Your task to perform on an android device: add a contact Image 0: 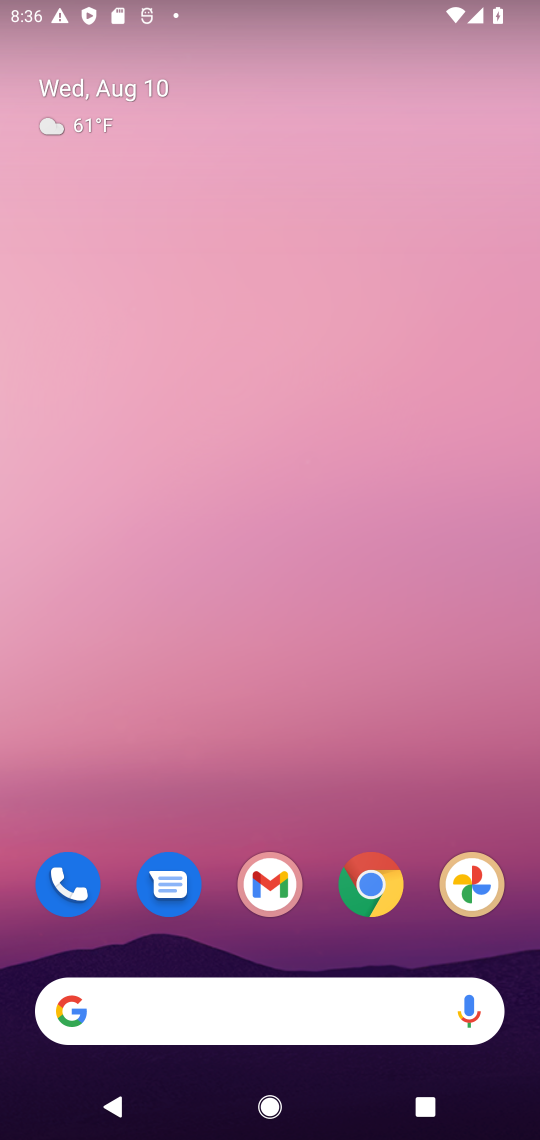
Step 0: click (62, 864)
Your task to perform on an android device: add a contact Image 1: 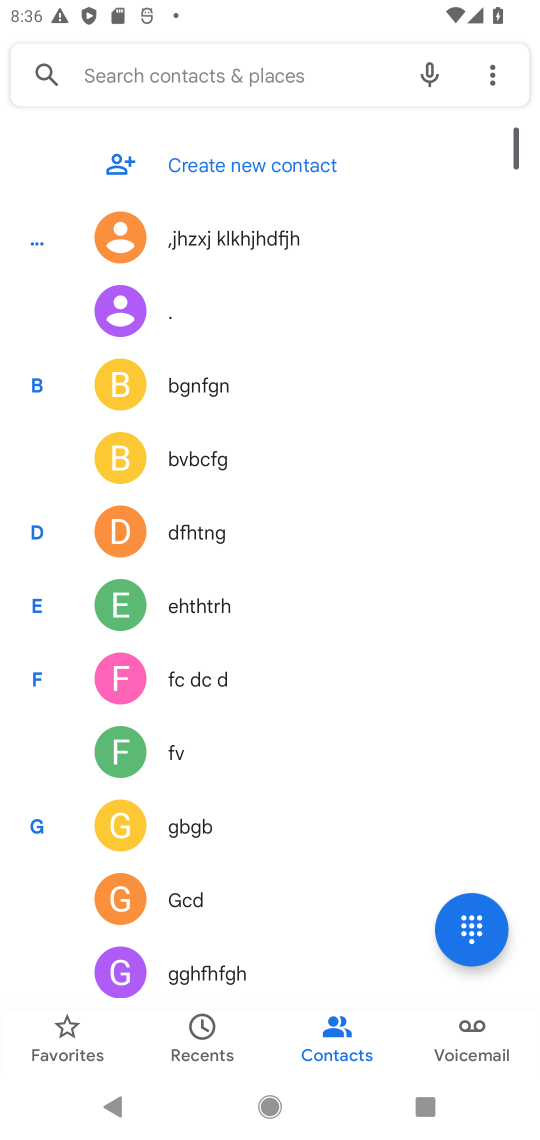
Step 1: click (253, 164)
Your task to perform on an android device: add a contact Image 2: 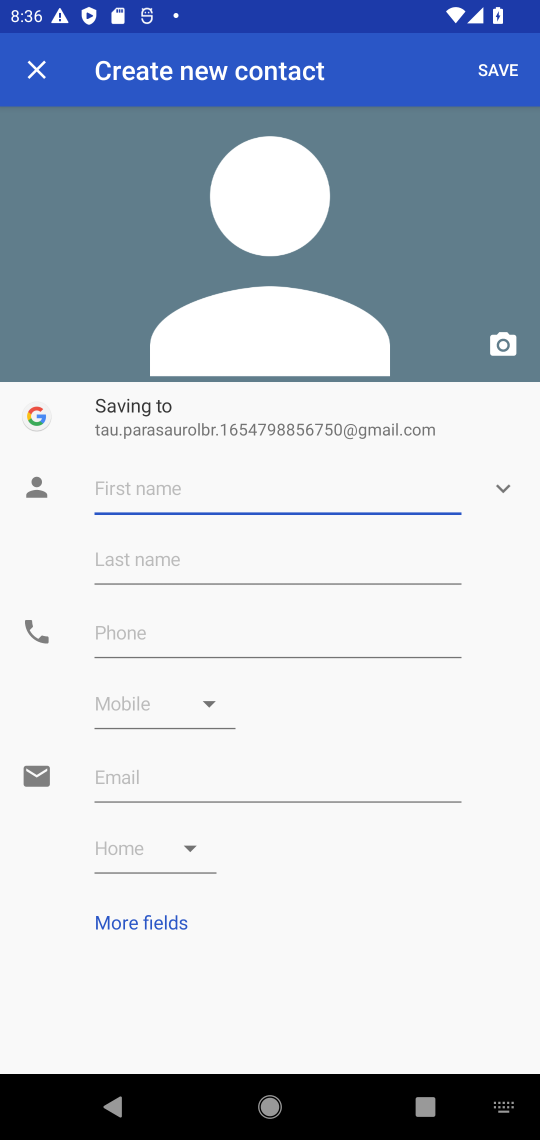
Step 2: type "svvavd"
Your task to perform on an android device: add a contact Image 3: 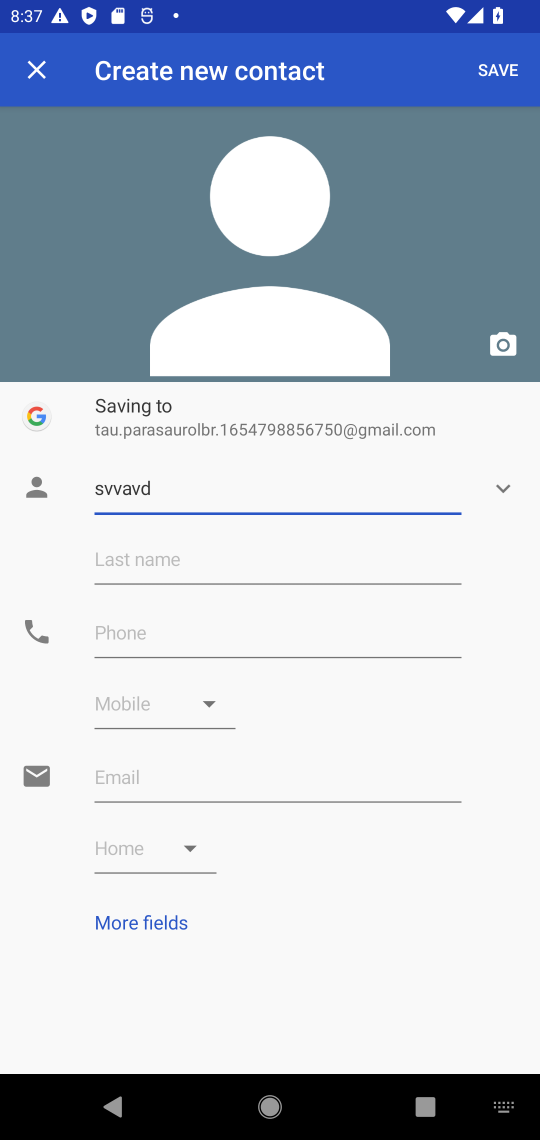
Step 3: click (497, 68)
Your task to perform on an android device: add a contact Image 4: 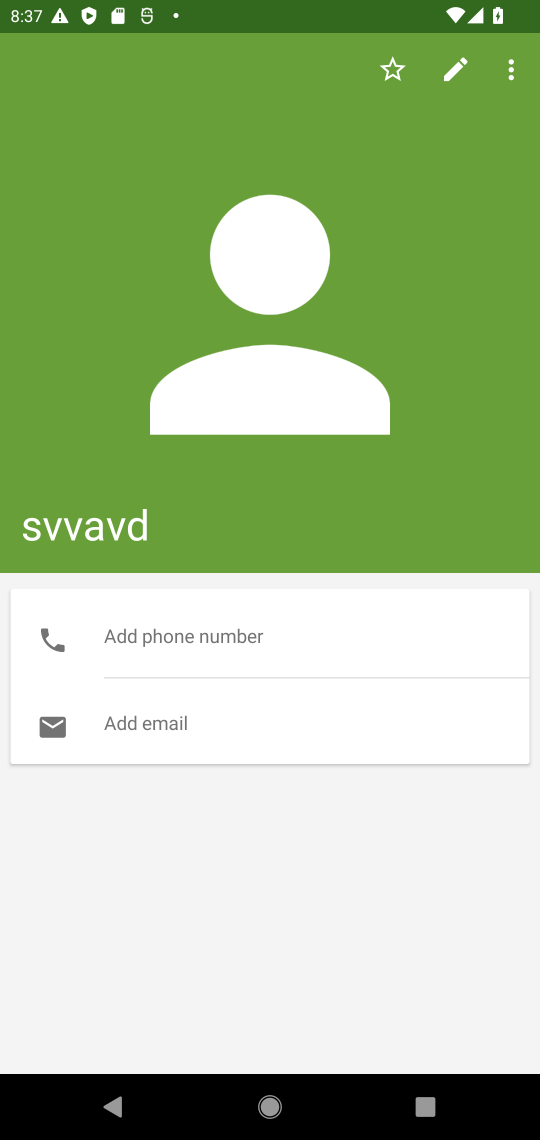
Step 4: task complete